Your task to perform on an android device: What's on my calendar today? Image 0: 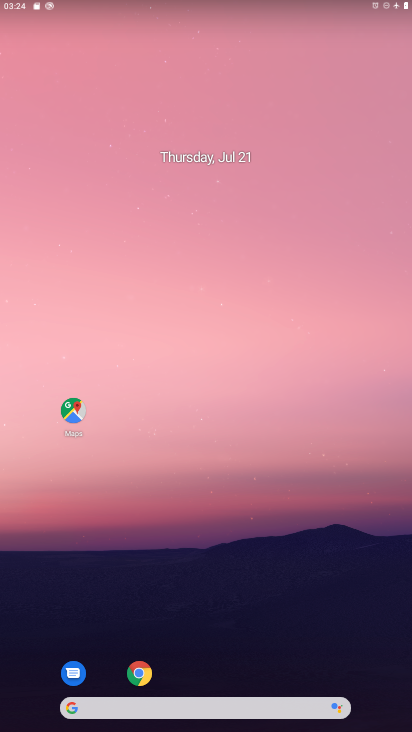
Step 0: drag from (338, 699) to (278, 179)
Your task to perform on an android device: What's on my calendar today? Image 1: 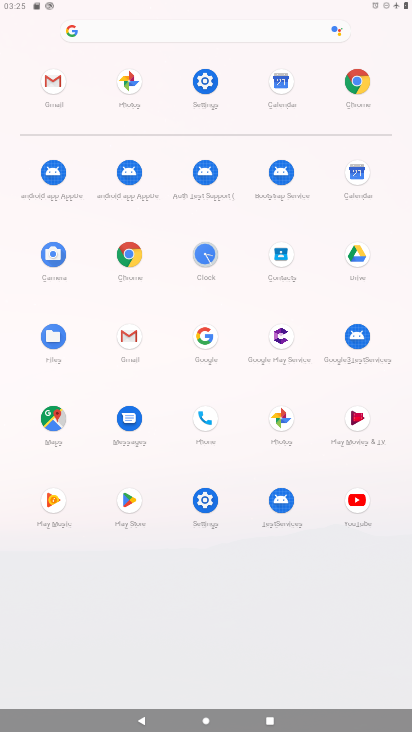
Step 1: click (276, 78)
Your task to perform on an android device: What's on my calendar today? Image 2: 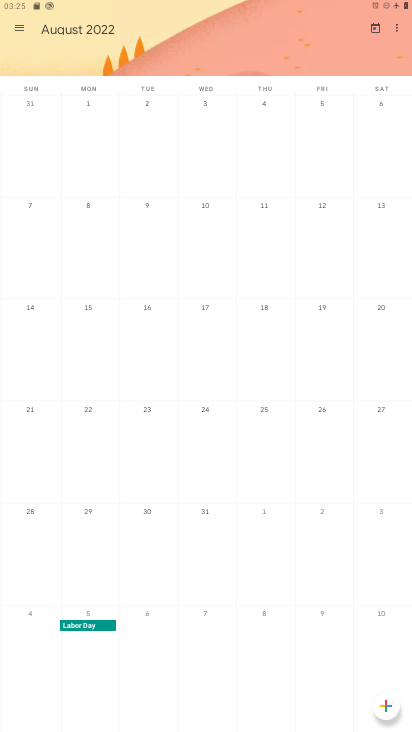
Step 2: drag from (81, 381) to (380, 403)
Your task to perform on an android device: What's on my calendar today? Image 3: 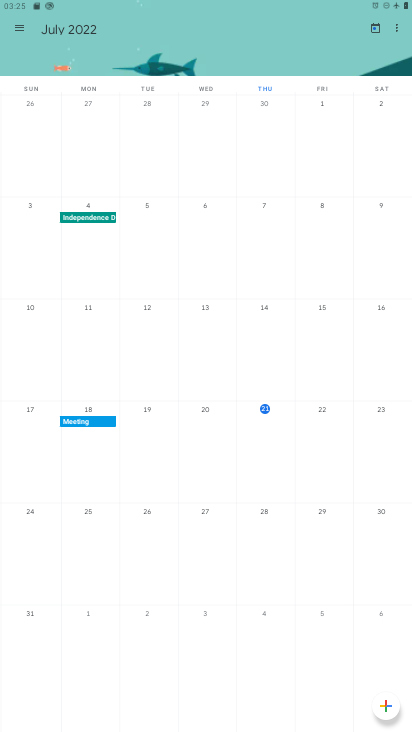
Step 3: click (257, 418)
Your task to perform on an android device: What's on my calendar today? Image 4: 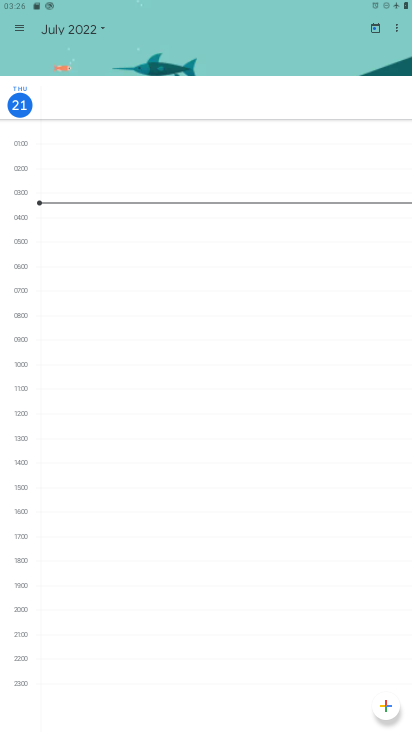
Step 4: task complete